Your task to perform on an android device: Open Chrome and go to the settings page Image 0: 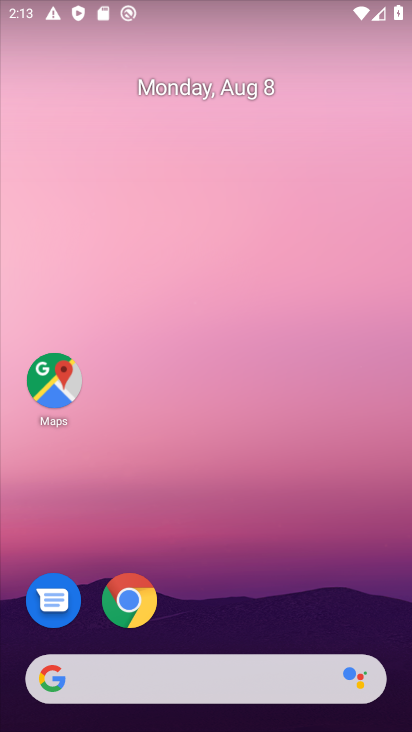
Step 0: click (149, 593)
Your task to perform on an android device: Open Chrome and go to the settings page Image 1: 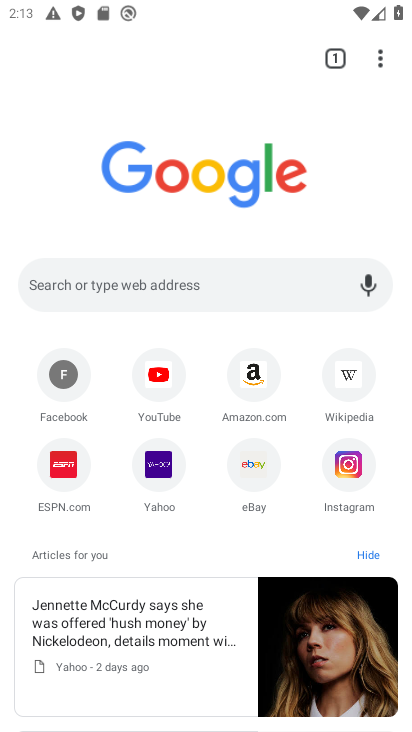
Step 1: click (381, 58)
Your task to perform on an android device: Open Chrome and go to the settings page Image 2: 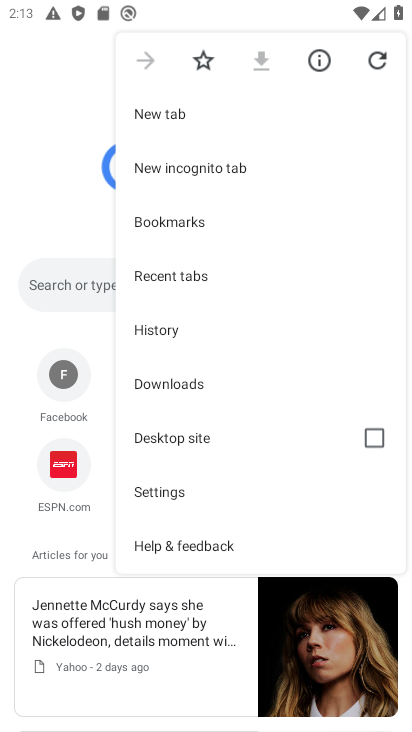
Step 2: click (197, 497)
Your task to perform on an android device: Open Chrome and go to the settings page Image 3: 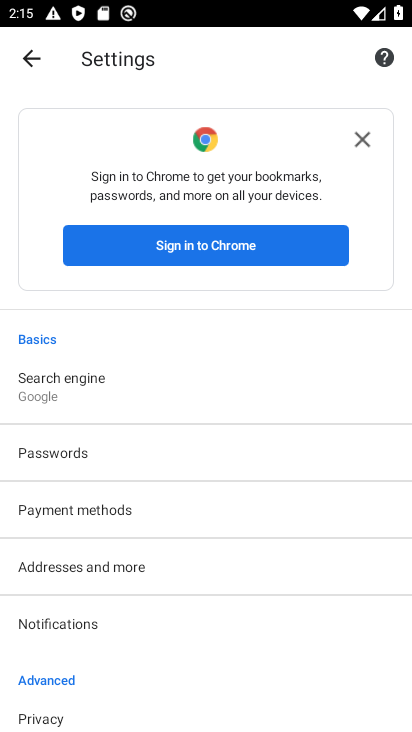
Step 3: task complete